Your task to perform on an android device: What is the news today? Image 0: 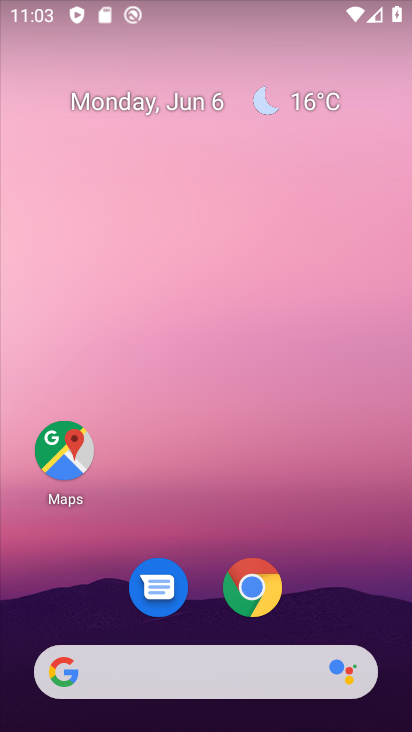
Step 0: drag from (348, 586) to (179, 12)
Your task to perform on an android device: What is the news today? Image 1: 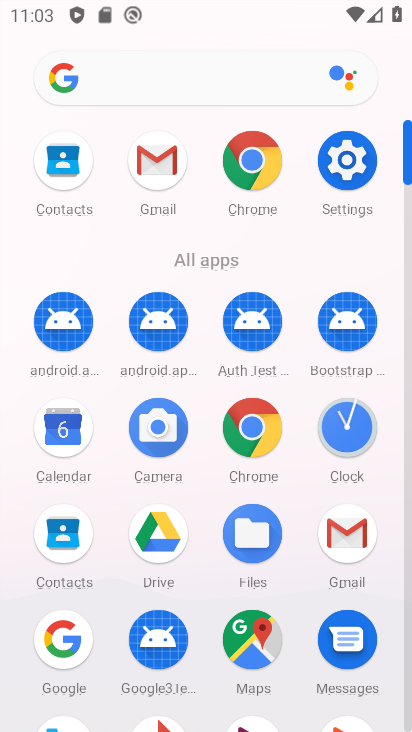
Step 1: click (252, 425)
Your task to perform on an android device: What is the news today? Image 2: 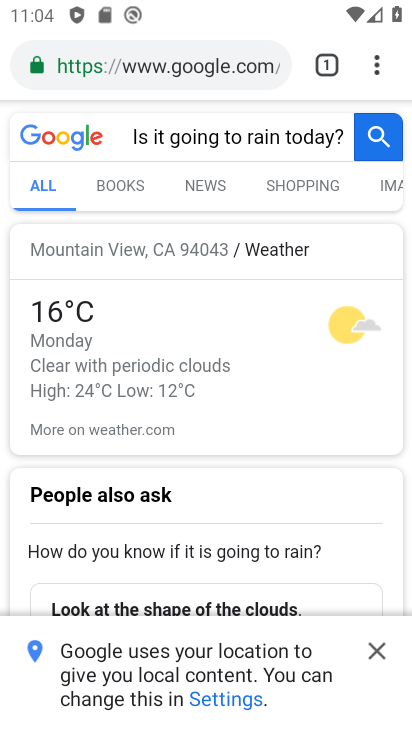
Step 2: click (161, 50)
Your task to perform on an android device: What is the news today? Image 3: 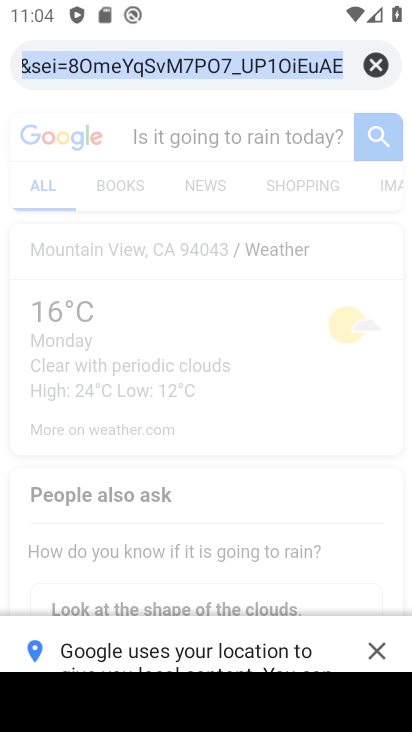
Step 3: click (373, 60)
Your task to perform on an android device: What is the news today? Image 4: 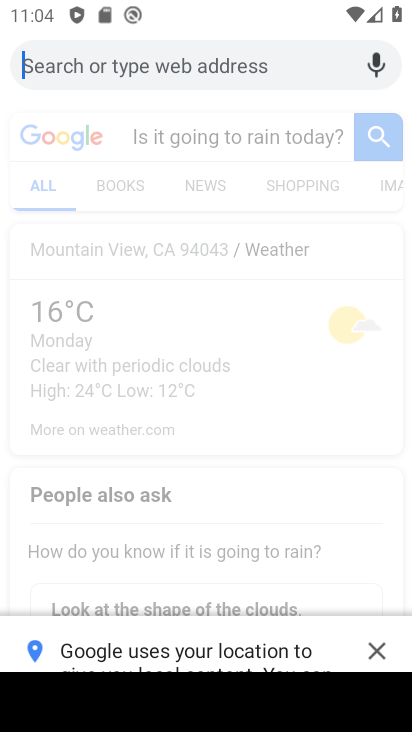
Step 4: type "What is the news today?"
Your task to perform on an android device: What is the news today? Image 5: 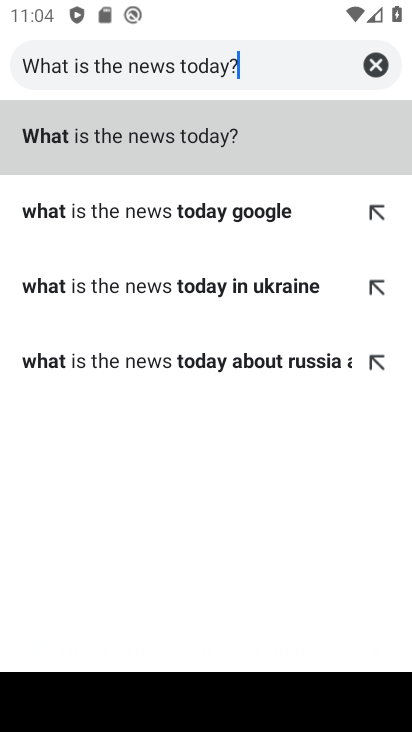
Step 5: type ""
Your task to perform on an android device: What is the news today? Image 6: 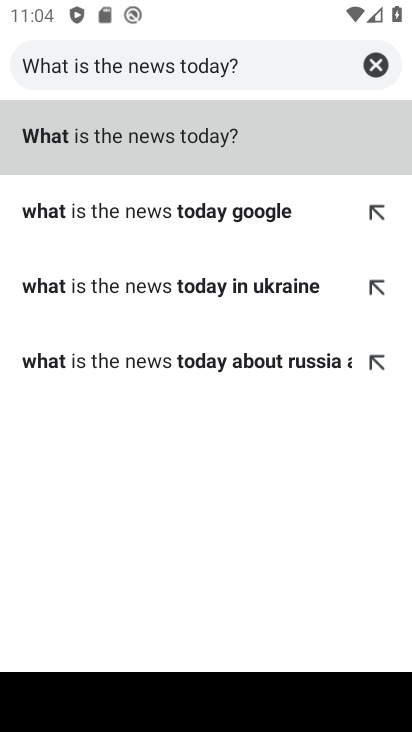
Step 6: click (165, 150)
Your task to perform on an android device: What is the news today? Image 7: 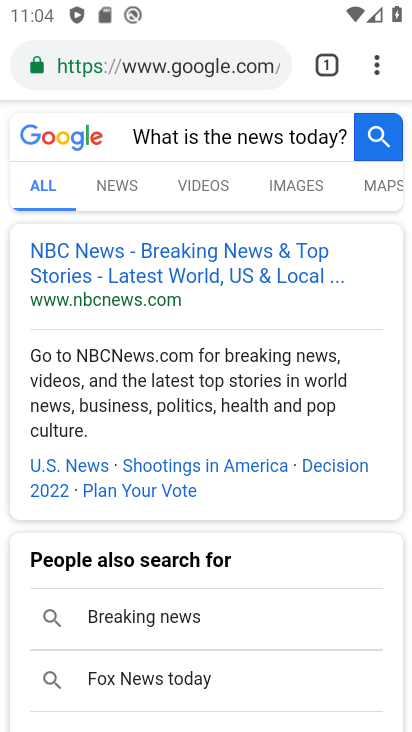
Step 7: click (114, 179)
Your task to perform on an android device: What is the news today? Image 8: 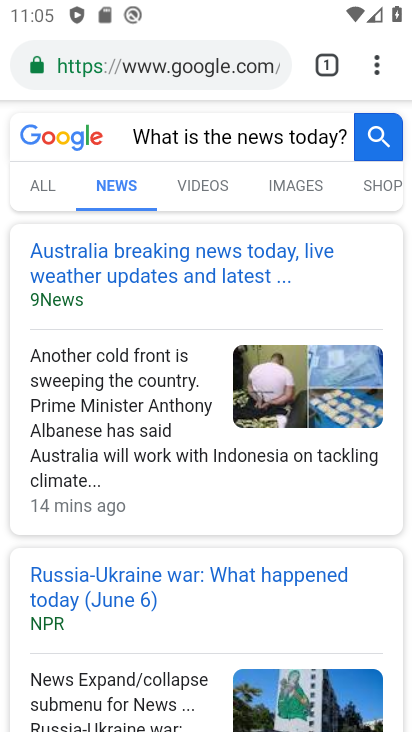
Step 8: task complete